Your task to perform on an android device: Go to network settings Image 0: 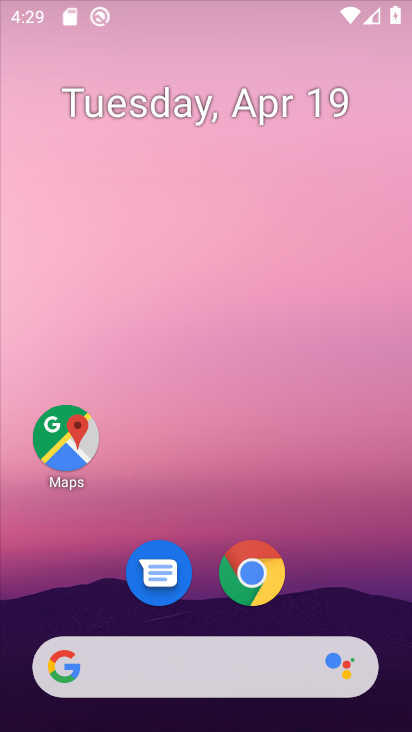
Step 0: drag from (387, 420) to (281, 1)
Your task to perform on an android device: Go to network settings Image 1: 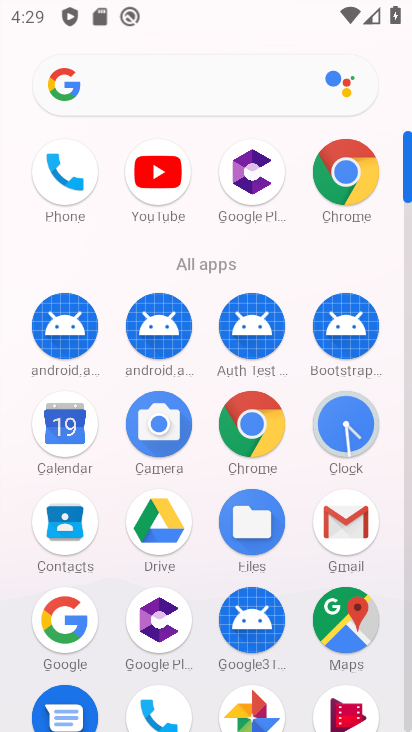
Step 1: drag from (395, 579) to (411, 466)
Your task to perform on an android device: Go to network settings Image 2: 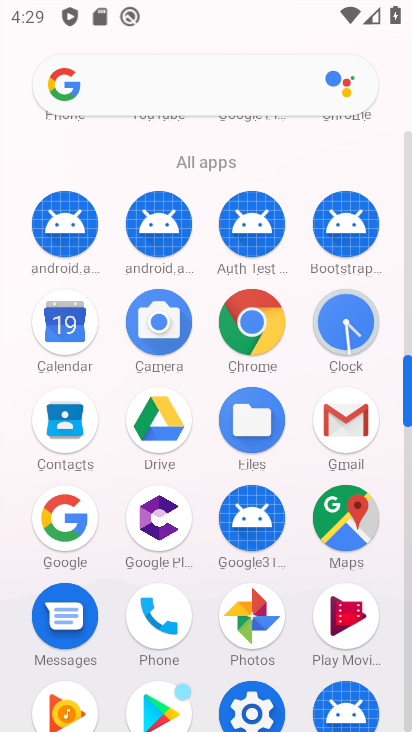
Step 2: drag from (398, 556) to (409, 330)
Your task to perform on an android device: Go to network settings Image 3: 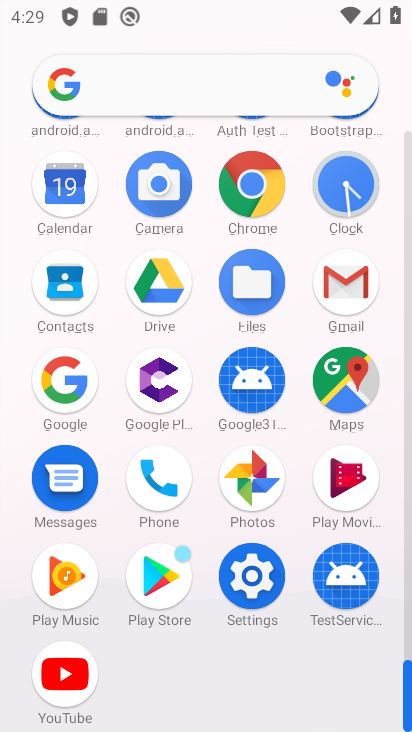
Step 3: click (255, 656)
Your task to perform on an android device: Go to network settings Image 4: 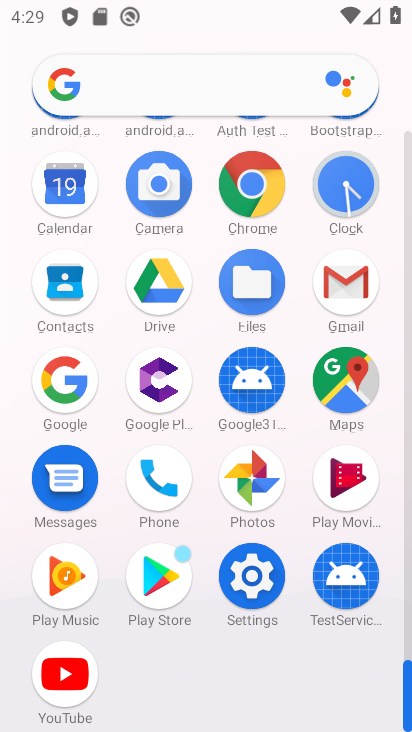
Step 4: click (239, 569)
Your task to perform on an android device: Go to network settings Image 5: 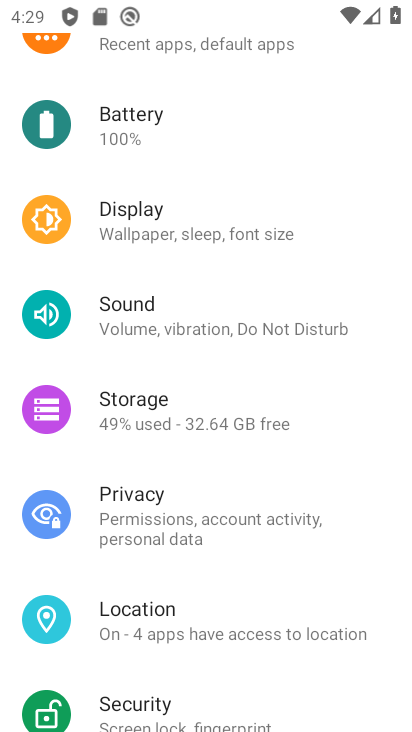
Step 5: drag from (177, 300) to (174, 690)
Your task to perform on an android device: Go to network settings Image 6: 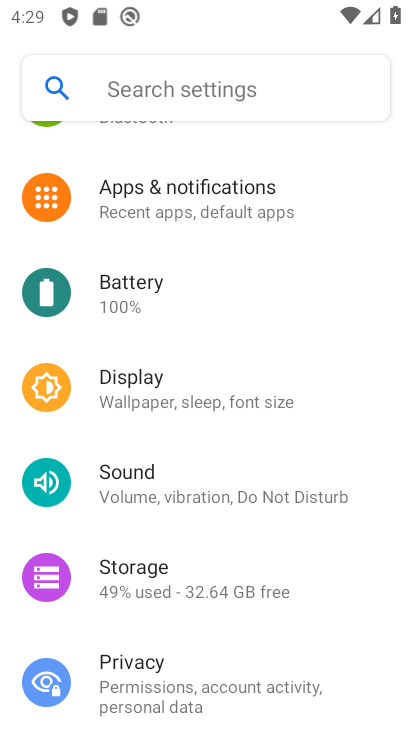
Step 6: drag from (237, 348) to (187, 674)
Your task to perform on an android device: Go to network settings Image 7: 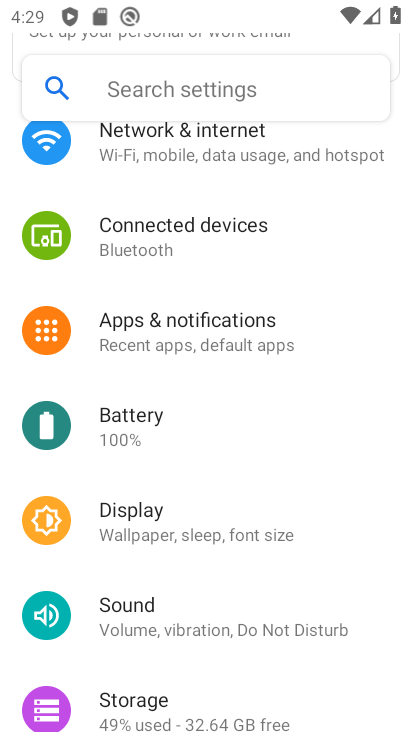
Step 7: drag from (313, 171) to (206, 662)
Your task to perform on an android device: Go to network settings Image 8: 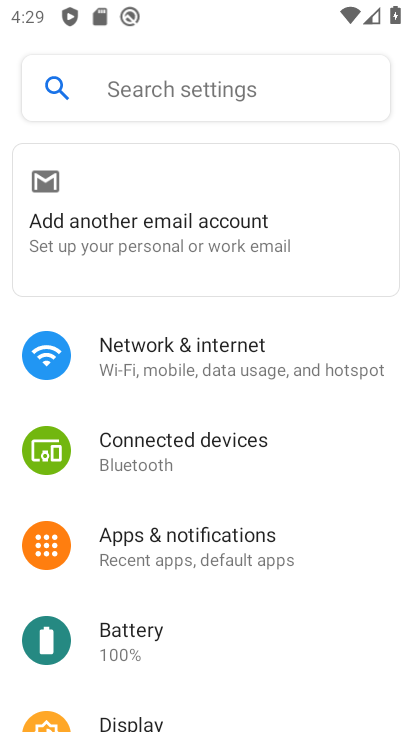
Step 8: click (289, 367)
Your task to perform on an android device: Go to network settings Image 9: 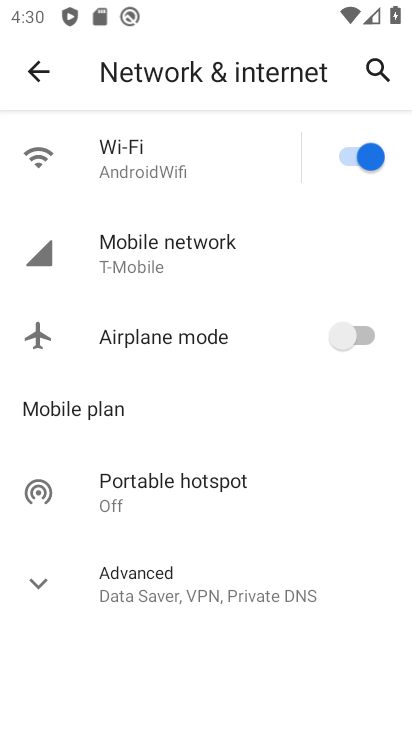
Step 9: click (107, 251)
Your task to perform on an android device: Go to network settings Image 10: 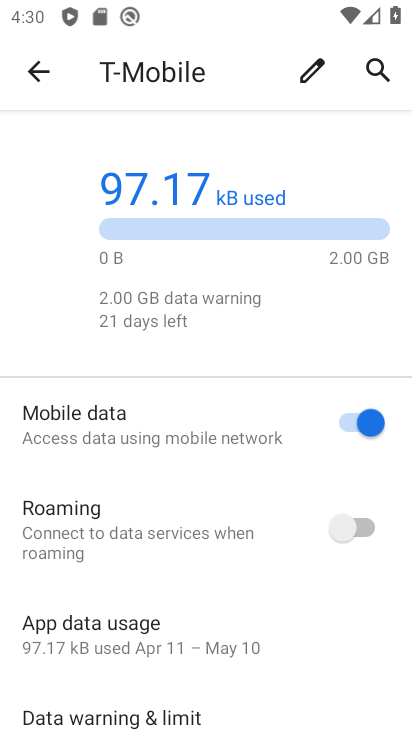
Step 10: task complete